Your task to perform on an android device: Search for sushi restaurants on Maps Image 0: 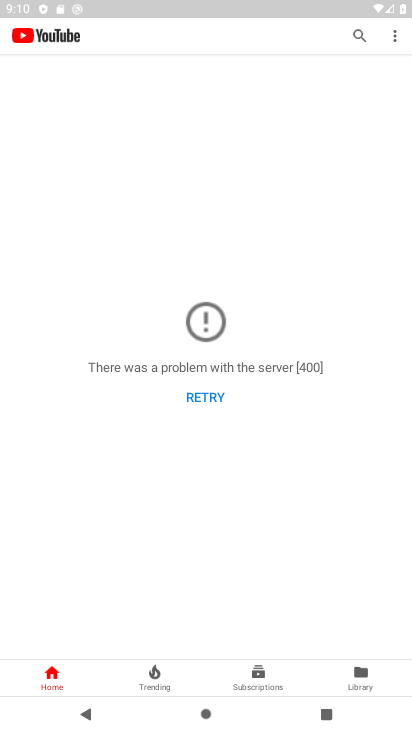
Step 0: press home button
Your task to perform on an android device: Search for sushi restaurants on Maps Image 1: 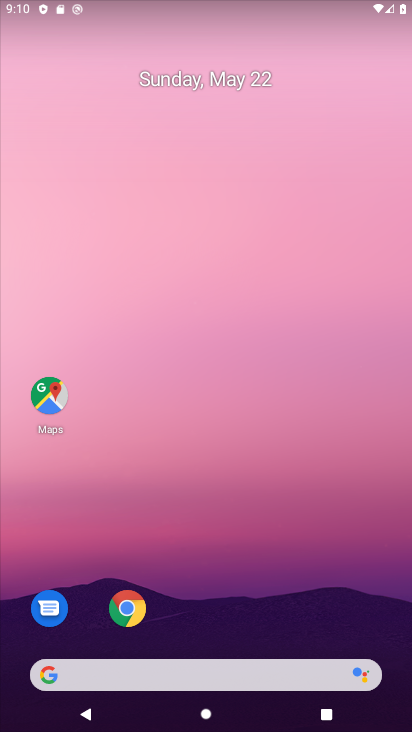
Step 1: click (45, 390)
Your task to perform on an android device: Search for sushi restaurants on Maps Image 2: 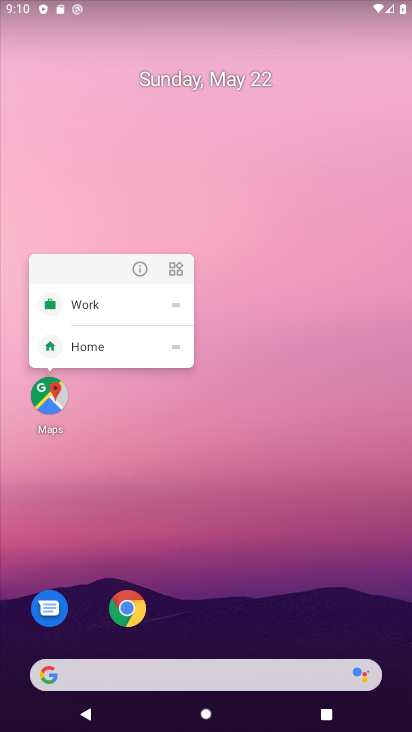
Step 2: click (41, 399)
Your task to perform on an android device: Search for sushi restaurants on Maps Image 3: 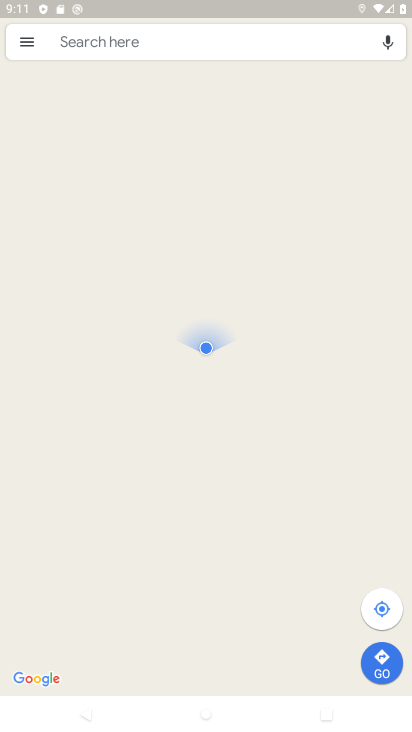
Step 3: click (180, 49)
Your task to perform on an android device: Search for sushi restaurants on Maps Image 4: 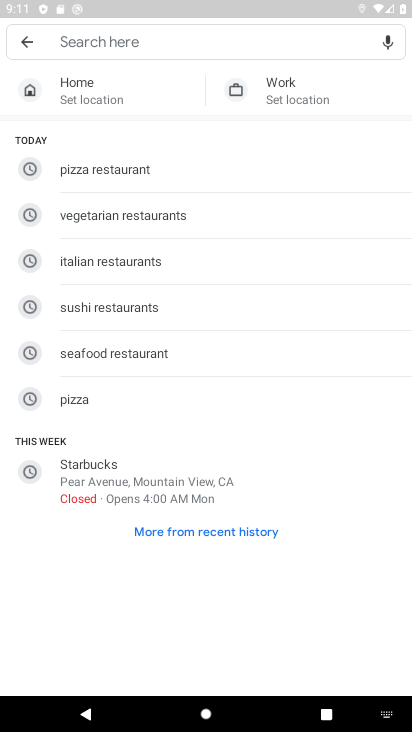
Step 4: type "sush"
Your task to perform on an android device: Search for sushi restaurants on Maps Image 5: 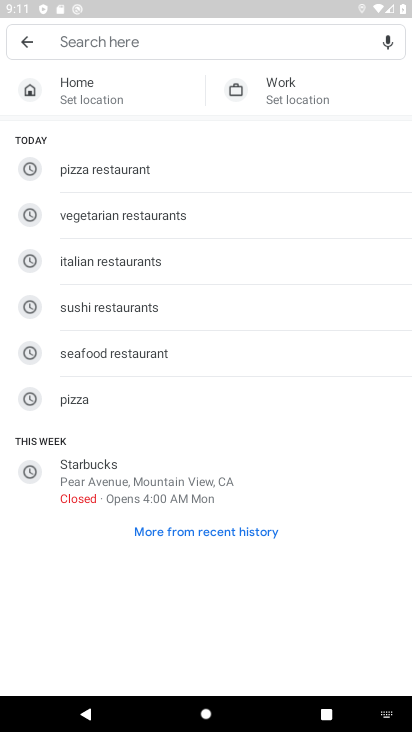
Step 5: click (107, 308)
Your task to perform on an android device: Search for sushi restaurants on Maps Image 6: 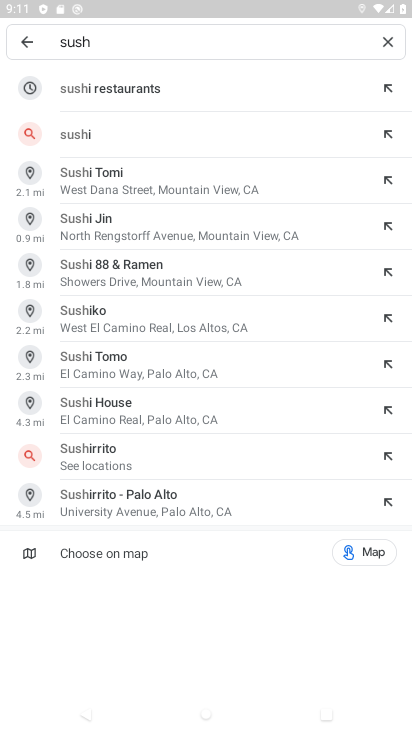
Step 6: click (164, 82)
Your task to perform on an android device: Search for sushi restaurants on Maps Image 7: 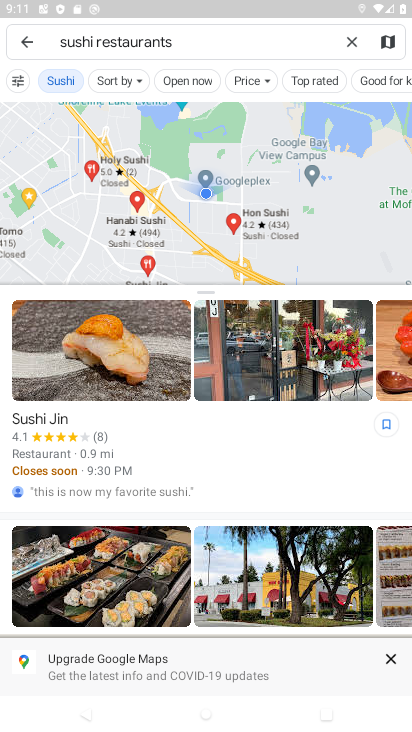
Step 7: task complete